Your task to perform on an android device: turn on translation in the chrome app Image 0: 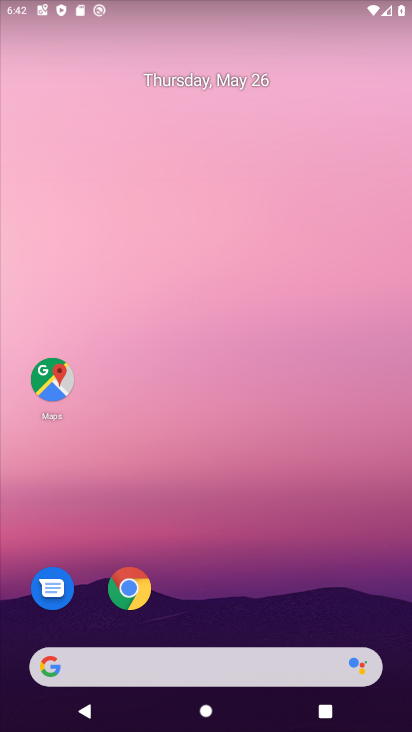
Step 0: drag from (348, 620) to (158, 22)
Your task to perform on an android device: turn on translation in the chrome app Image 1: 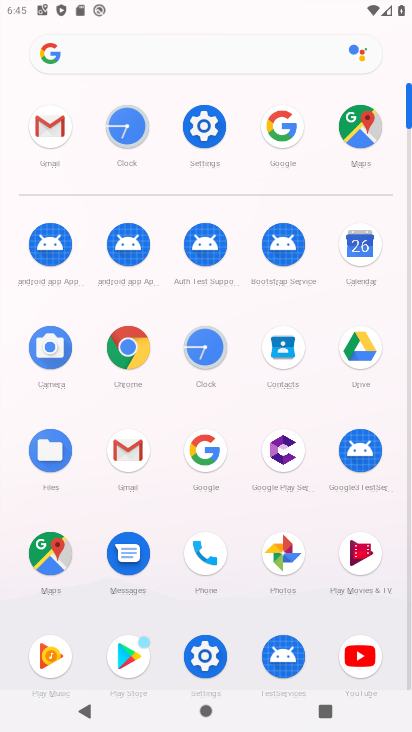
Step 1: click (137, 353)
Your task to perform on an android device: turn on translation in the chrome app Image 2: 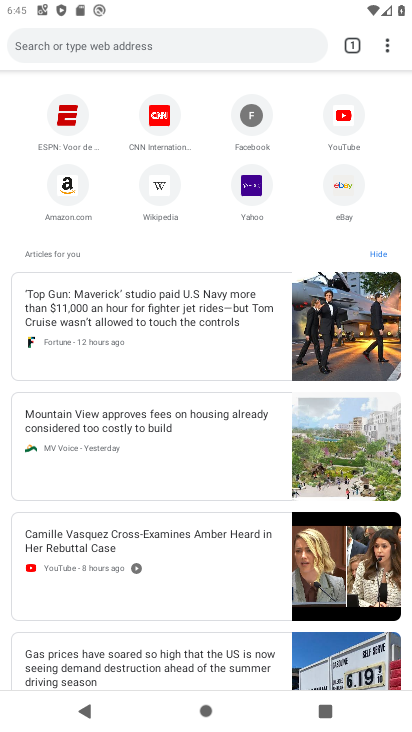
Step 2: click (383, 43)
Your task to perform on an android device: turn on translation in the chrome app Image 3: 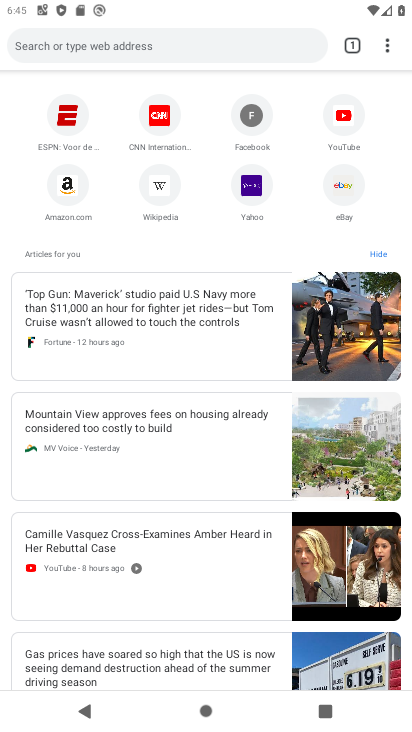
Step 3: click (383, 39)
Your task to perform on an android device: turn on translation in the chrome app Image 4: 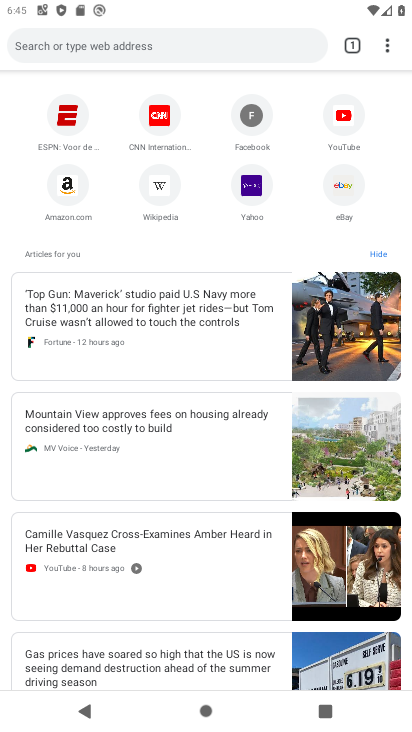
Step 4: click (380, 39)
Your task to perform on an android device: turn on translation in the chrome app Image 5: 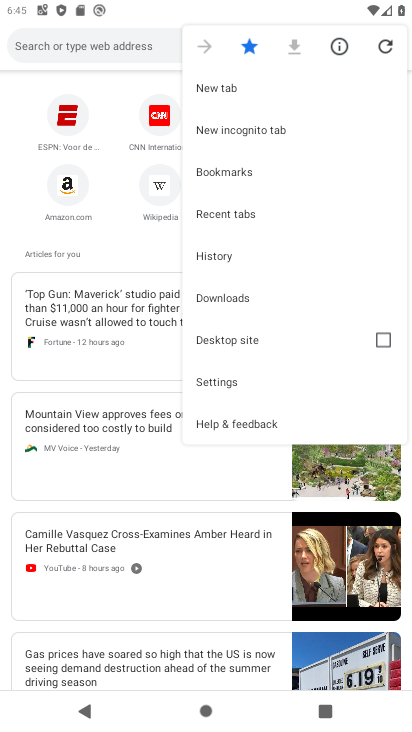
Step 5: click (238, 383)
Your task to perform on an android device: turn on translation in the chrome app Image 6: 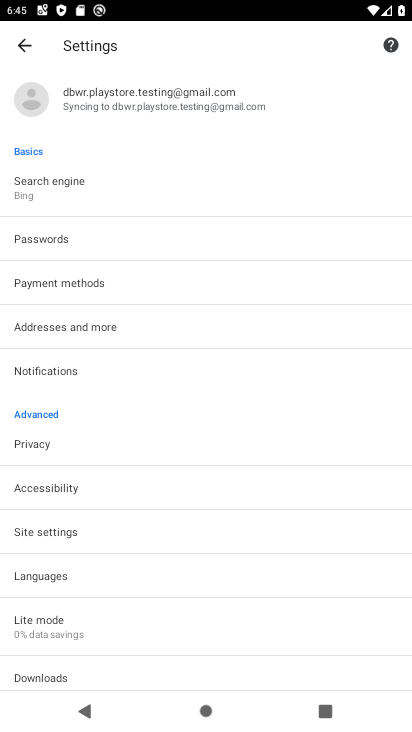
Step 6: click (115, 554)
Your task to perform on an android device: turn on translation in the chrome app Image 7: 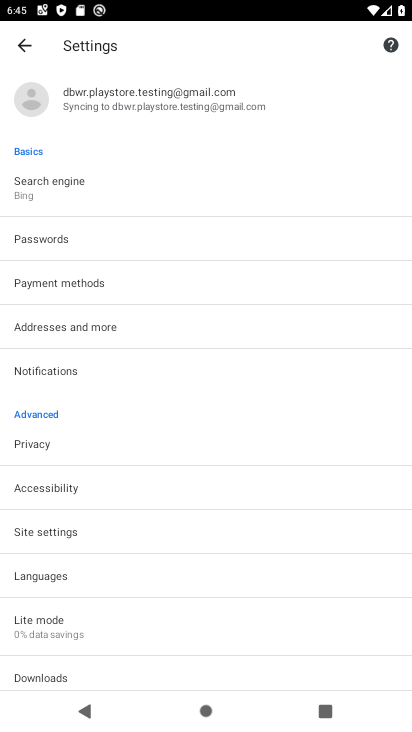
Step 7: click (126, 572)
Your task to perform on an android device: turn on translation in the chrome app Image 8: 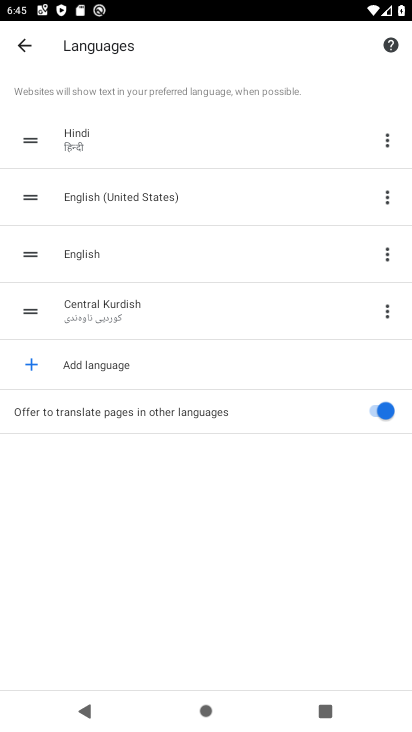
Step 8: task complete